Your task to perform on an android device: Open Youtube and go to the subscriptions tab Image 0: 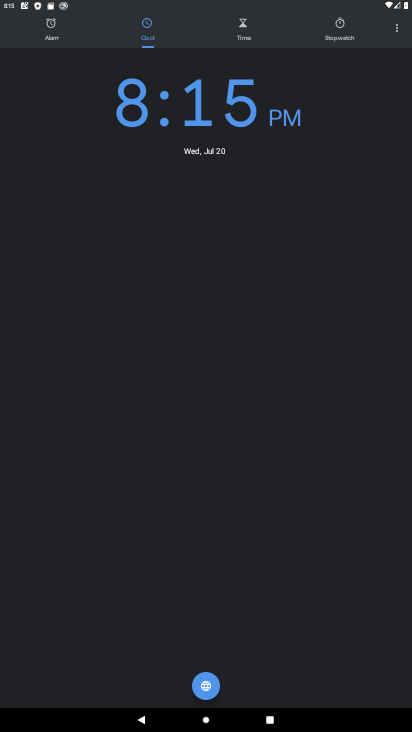
Step 0: press home button
Your task to perform on an android device: Open Youtube and go to the subscriptions tab Image 1: 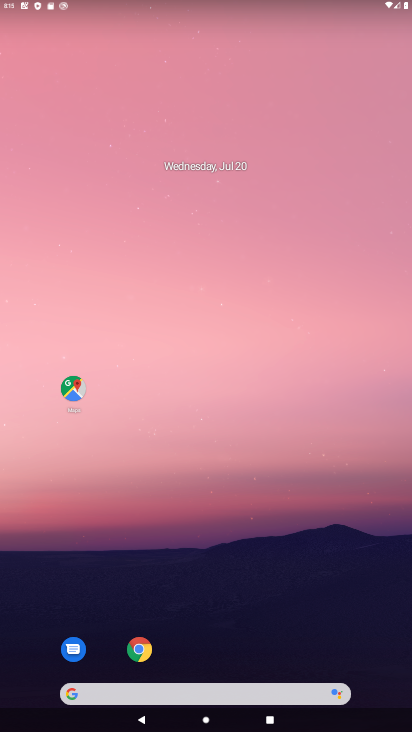
Step 1: drag from (265, 646) to (318, 17)
Your task to perform on an android device: Open Youtube and go to the subscriptions tab Image 2: 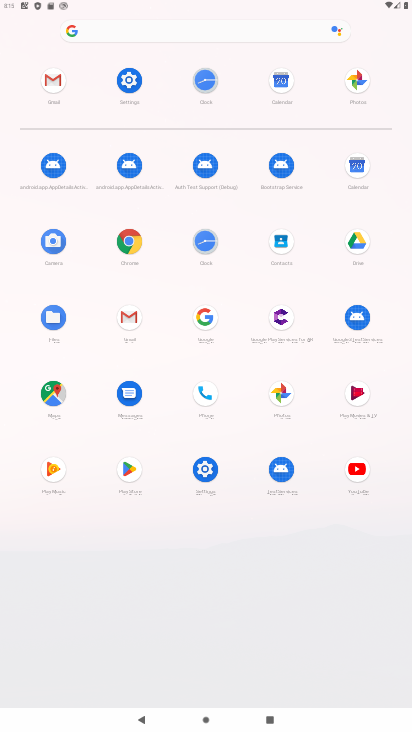
Step 2: click (353, 476)
Your task to perform on an android device: Open Youtube and go to the subscriptions tab Image 3: 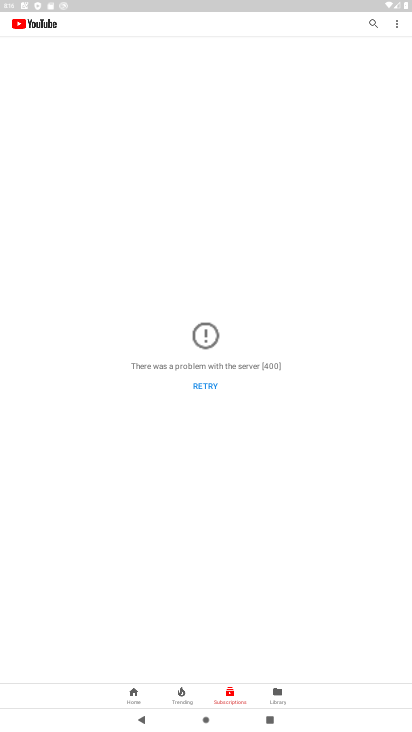
Step 3: task complete